Your task to perform on an android device: install app "Instagram" Image 0: 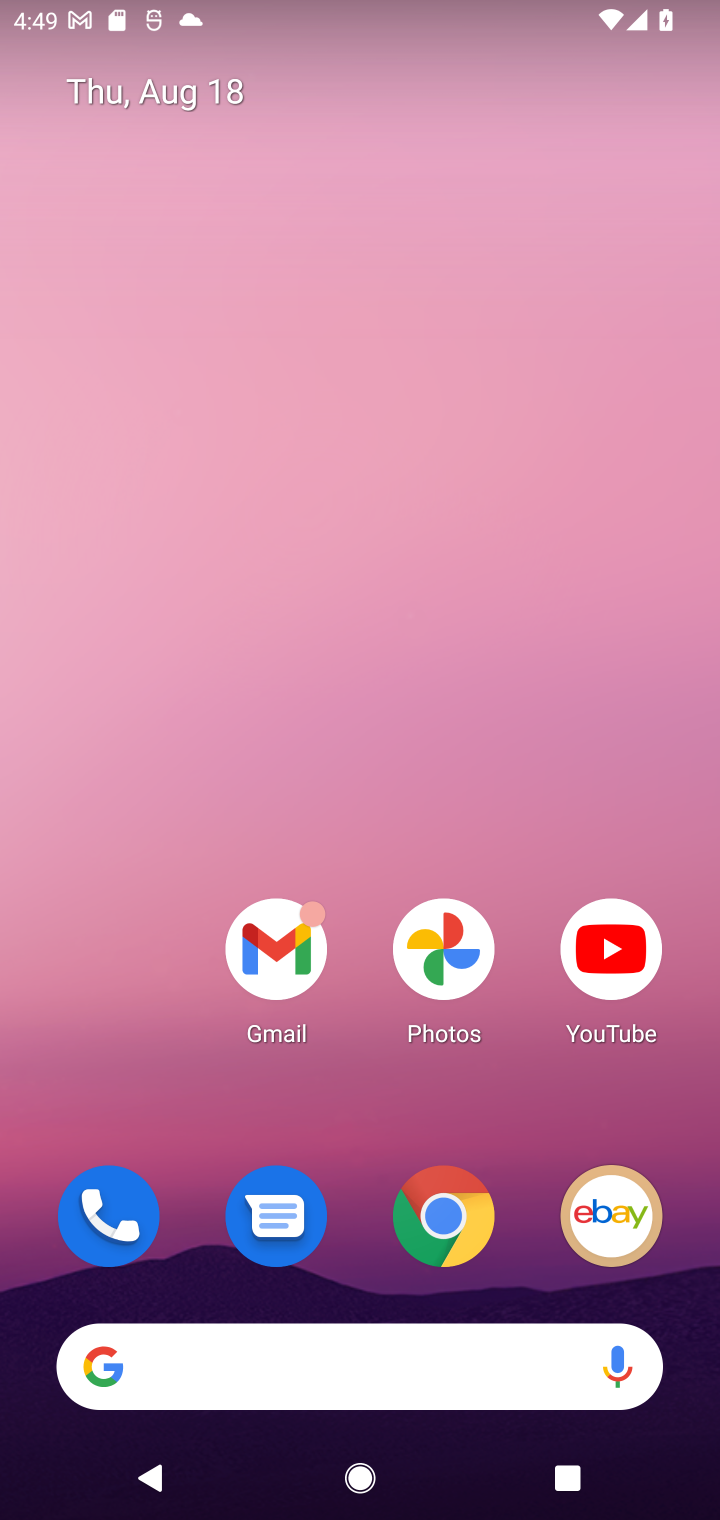
Step 0: drag from (527, 1274) to (498, 63)
Your task to perform on an android device: install app "Instagram" Image 1: 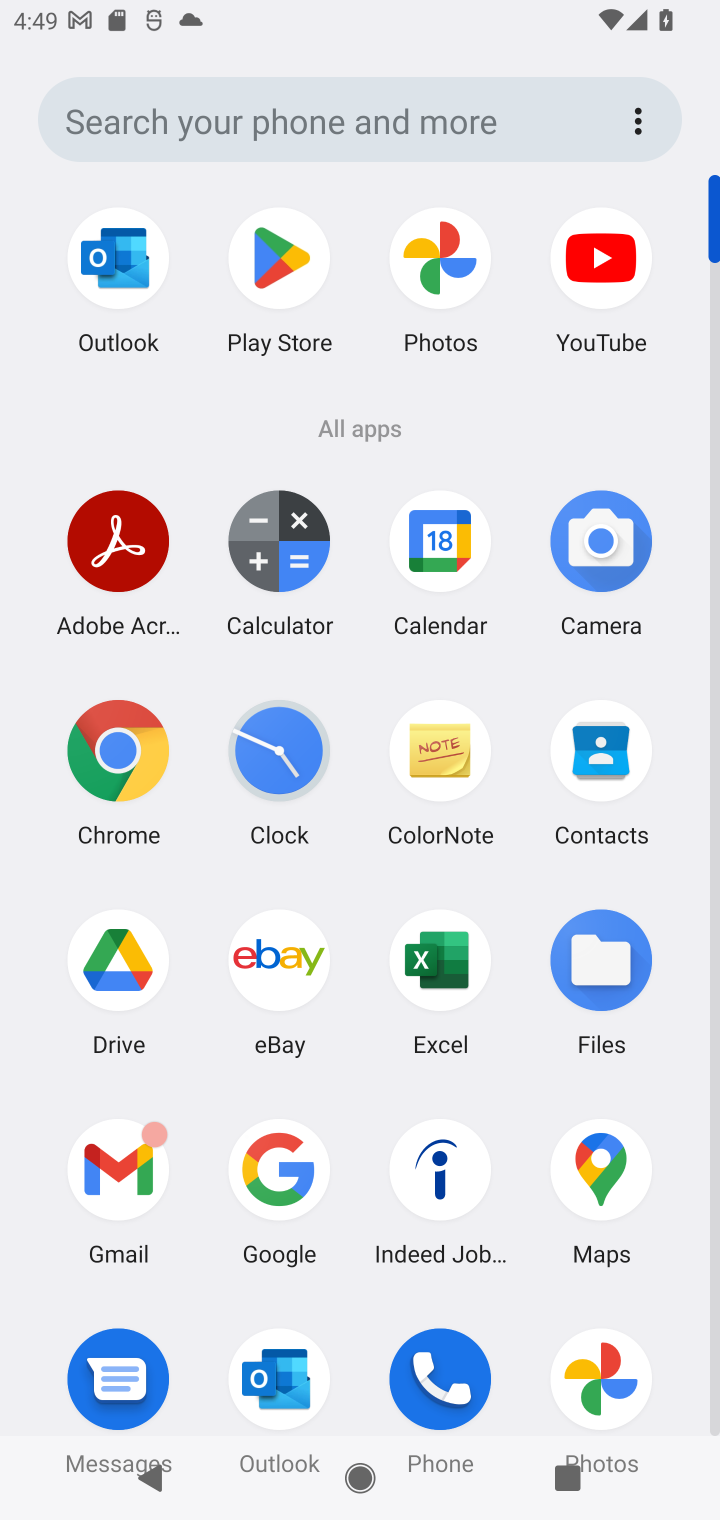
Step 1: drag from (546, 950) to (547, 803)
Your task to perform on an android device: install app "Instagram" Image 2: 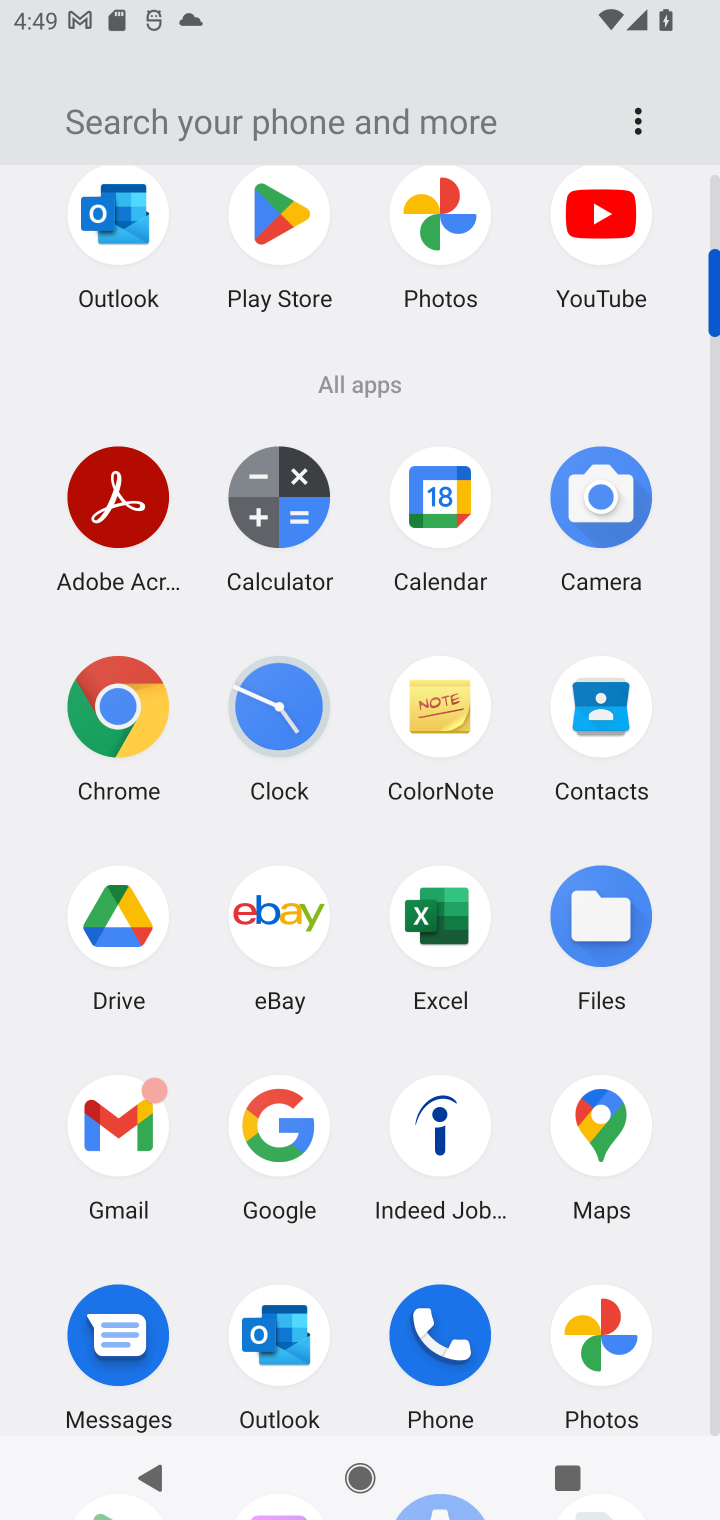
Step 2: click (711, 1387)
Your task to perform on an android device: install app "Instagram" Image 3: 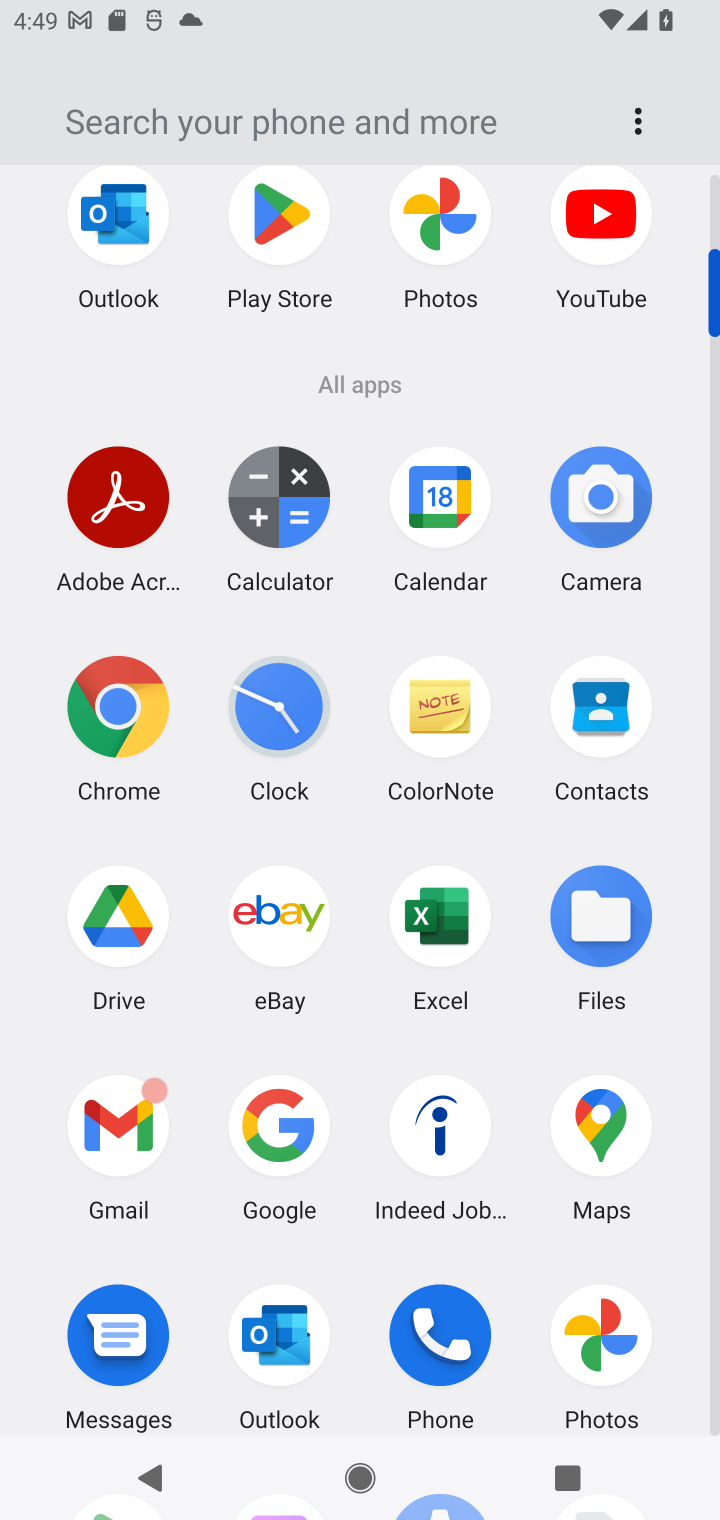
Step 3: click (716, 1391)
Your task to perform on an android device: install app "Instagram" Image 4: 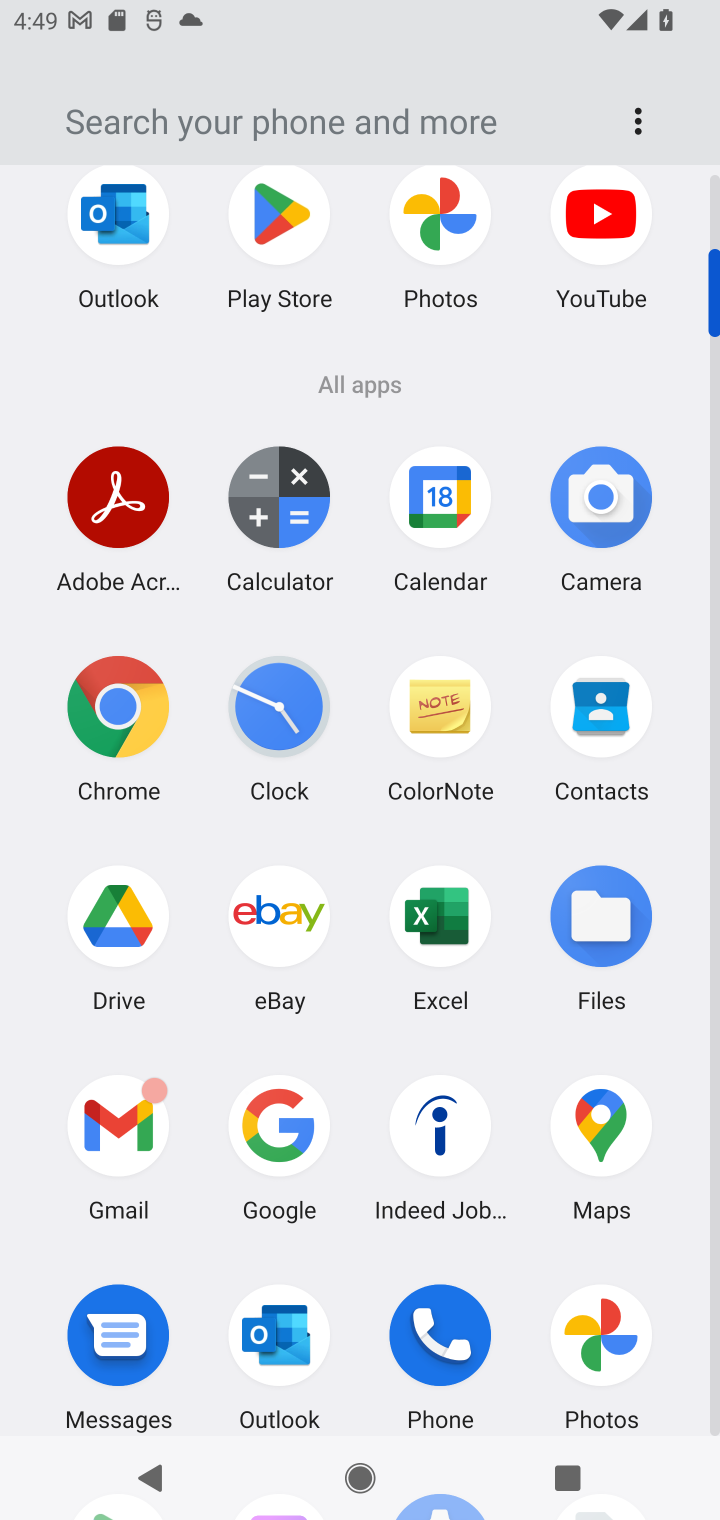
Step 4: click (716, 1399)
Your task to perform on an android device: install app "Instagram" Image 5: 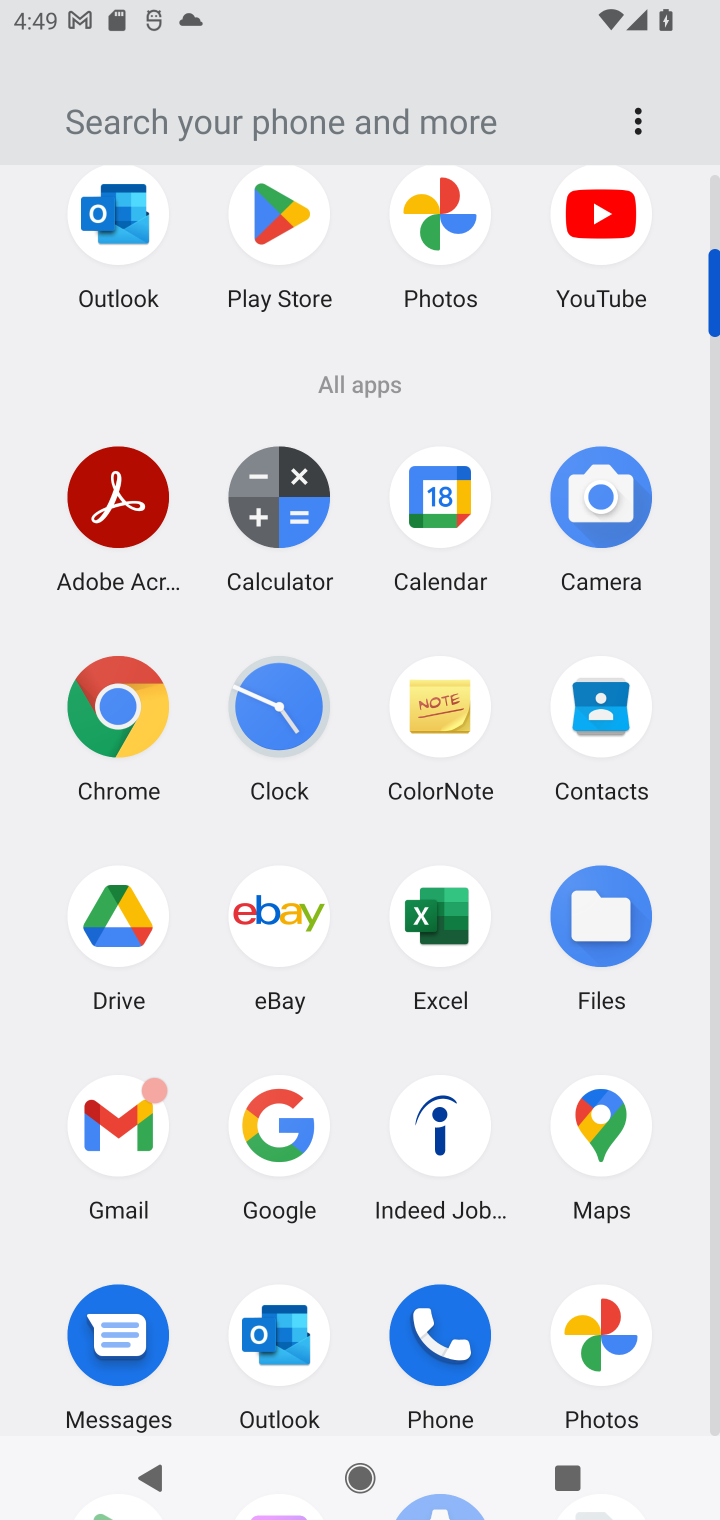
Step 5: drag from (689, 1404) to (673, 606)
Your task to perform on an android device: install app "Instagram" Image 6: 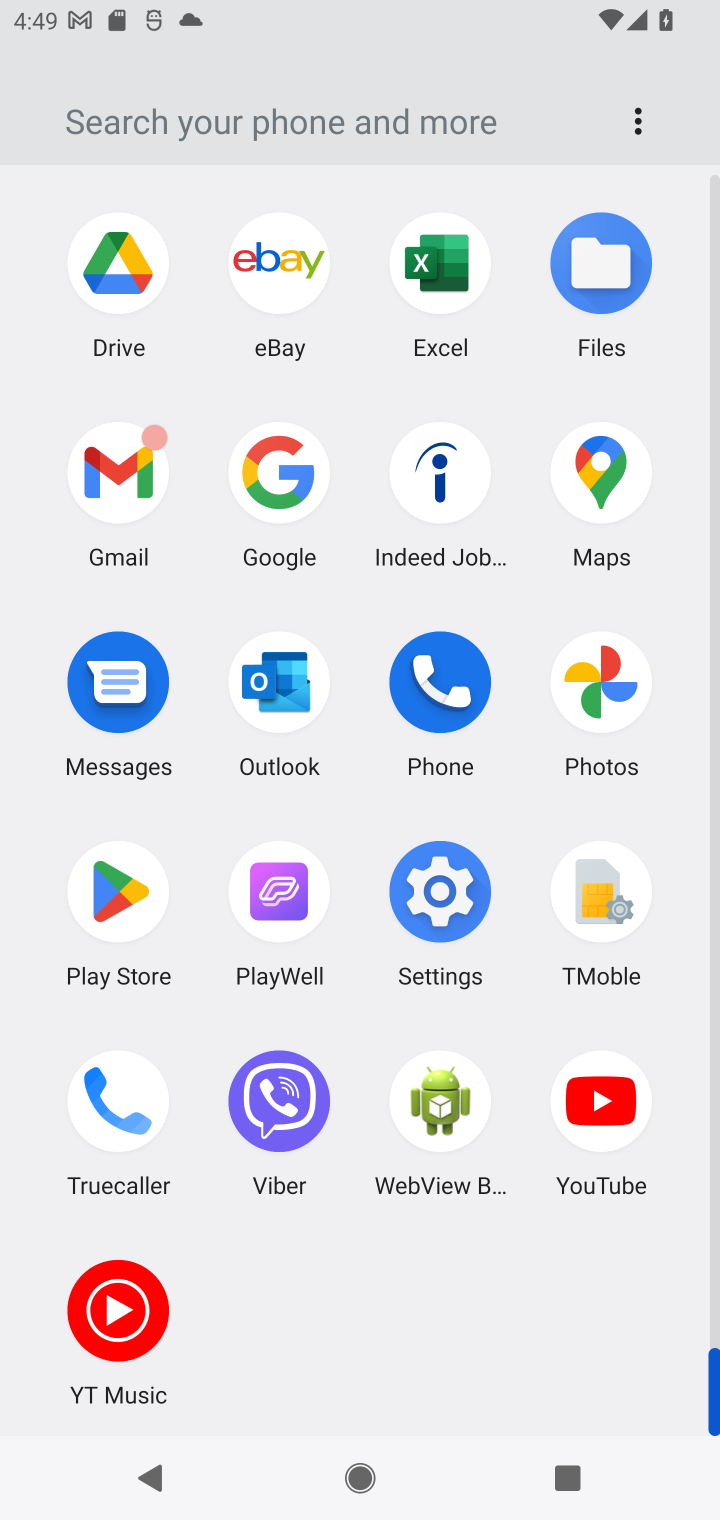
Step 6: click (123, 889)
Your task to perform on an android device: install app "Instagram" Image 7: 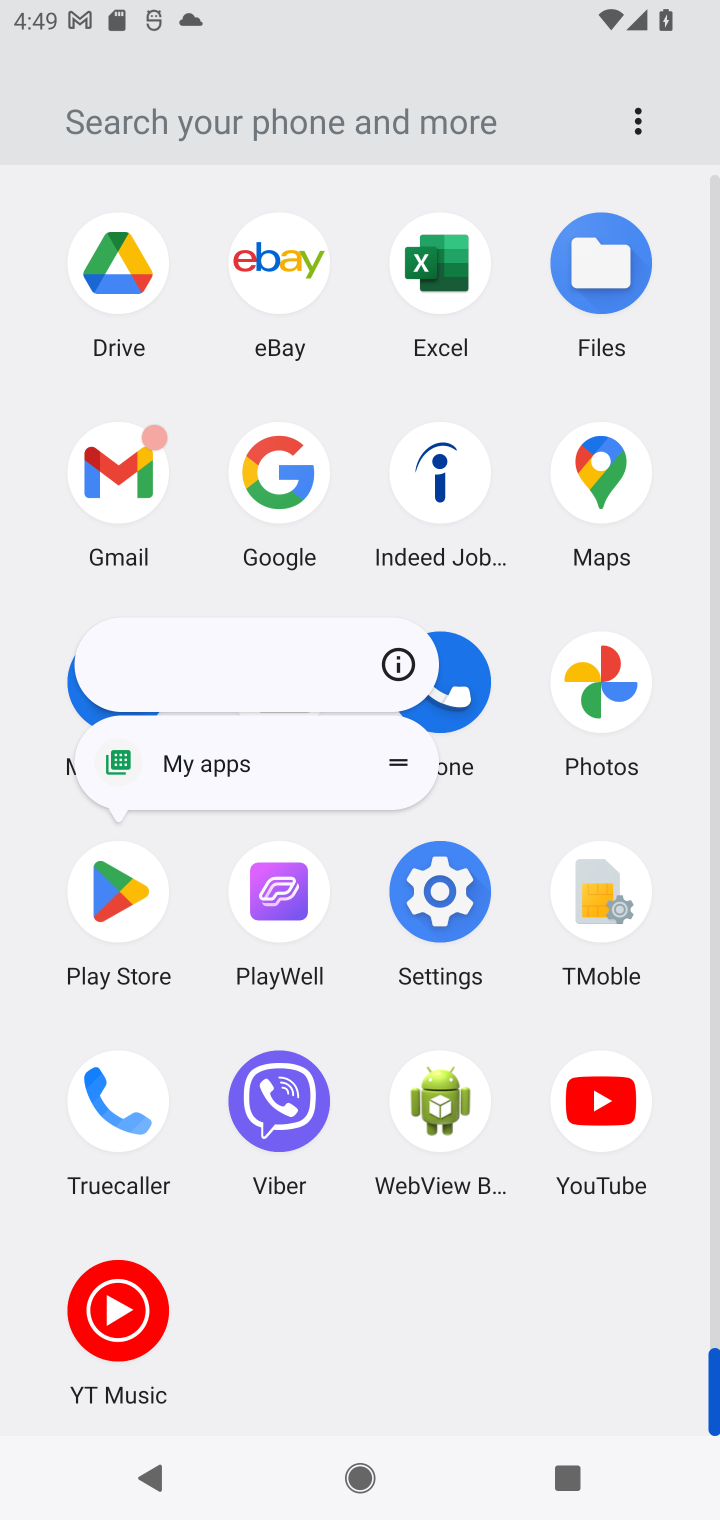
Step 7: click (122, 889)
Your task to perform on an android device: install app "Instagram" Image 8: 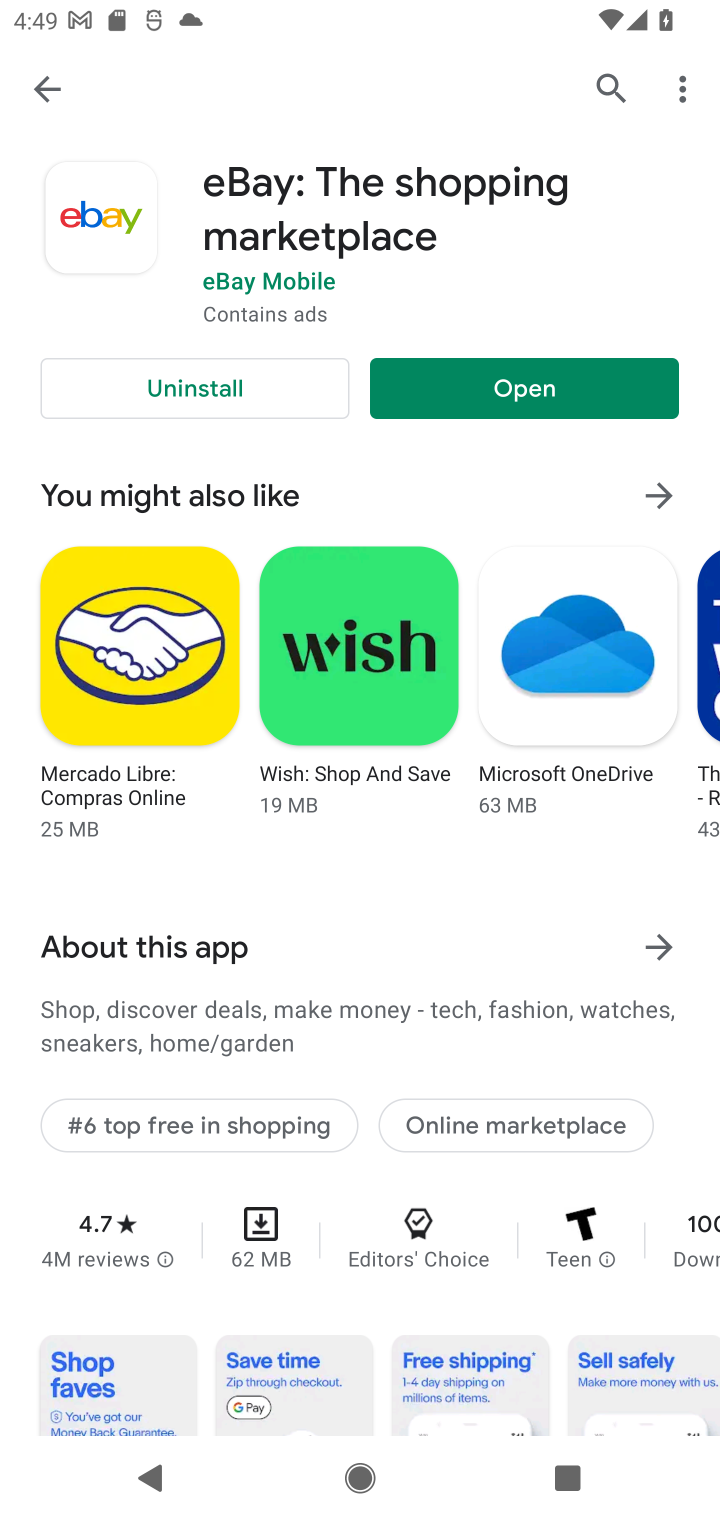
Step 8: click (611, 92)
Your task to perform on an android device: install app "Instagram" Image 9: 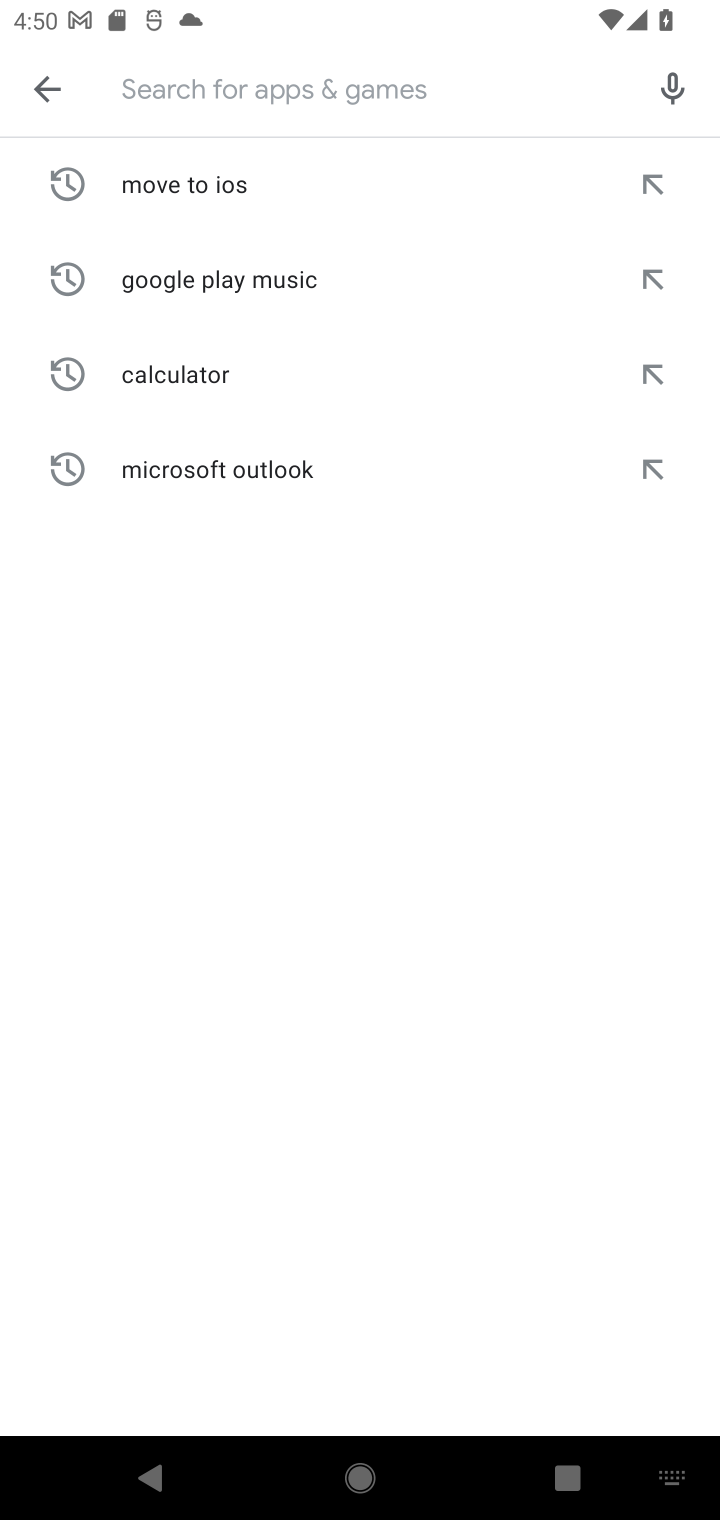
Step 9: type "Instagram"
Your task to perform on an android device: install app "Instagram" Image 10: 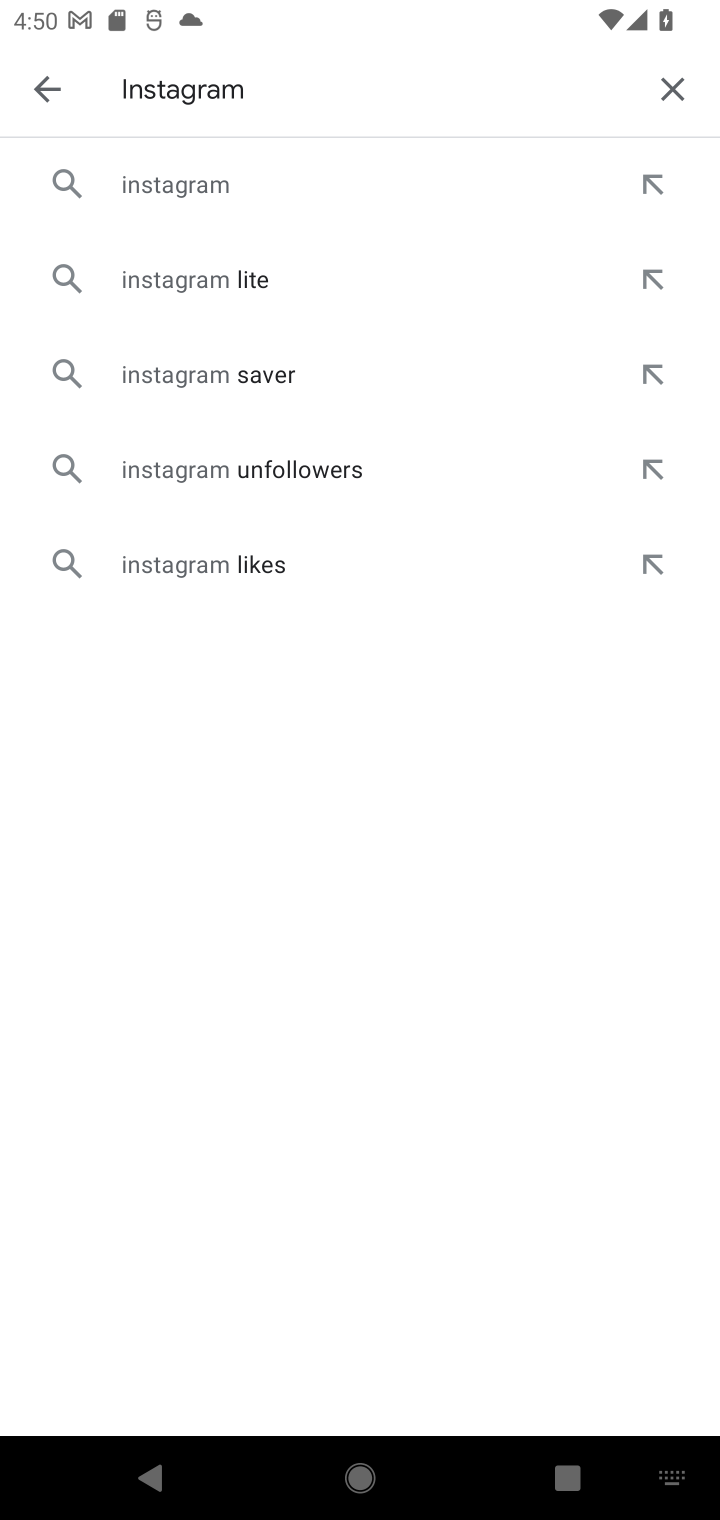
Step 10: click (188, 190)
Your task to perform on an android device: install app "Instagram" Image 11: 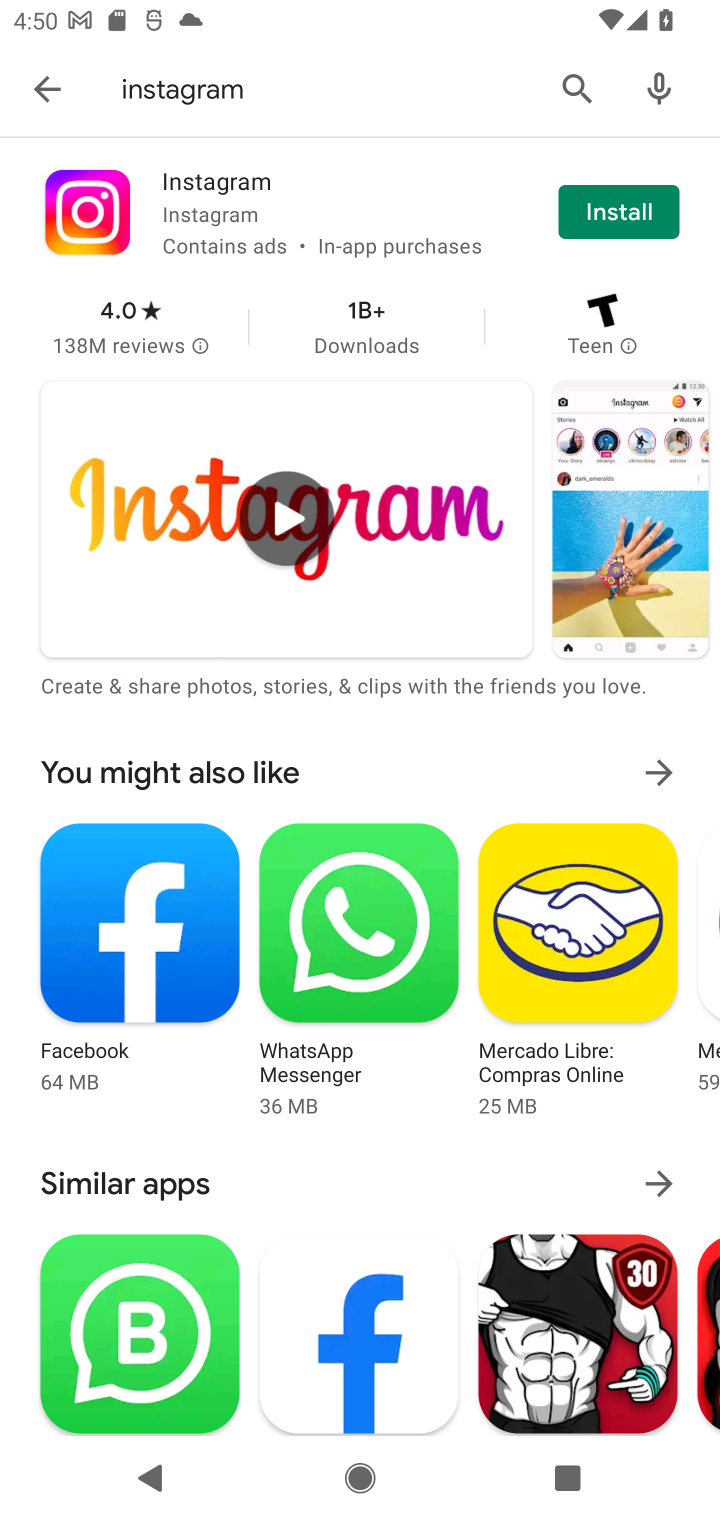
Step 11: click (616, 210)
Your task to perform on an android device: install app "Instagram" Image 12: 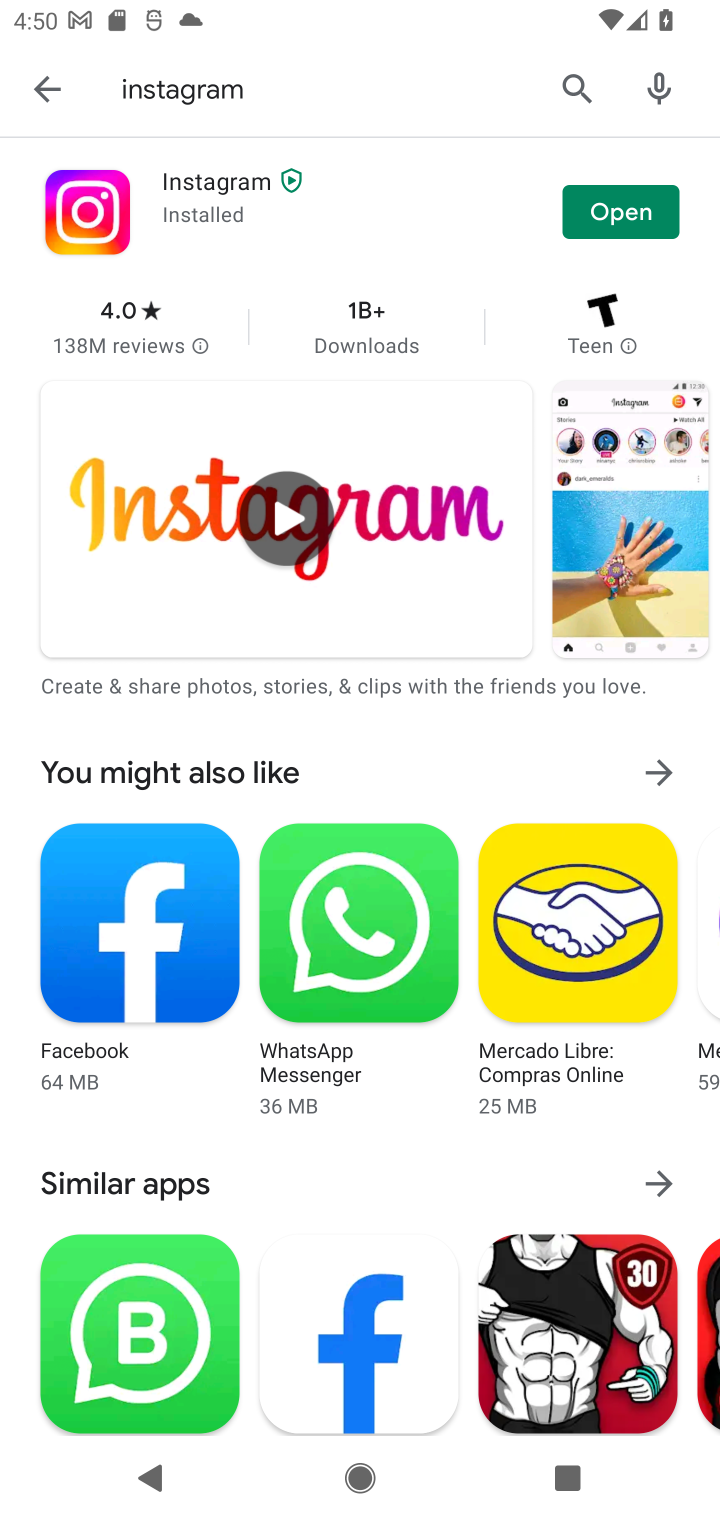
Step 12: task complete